Your task to perform on an android device: Go to internet settings Image 0: 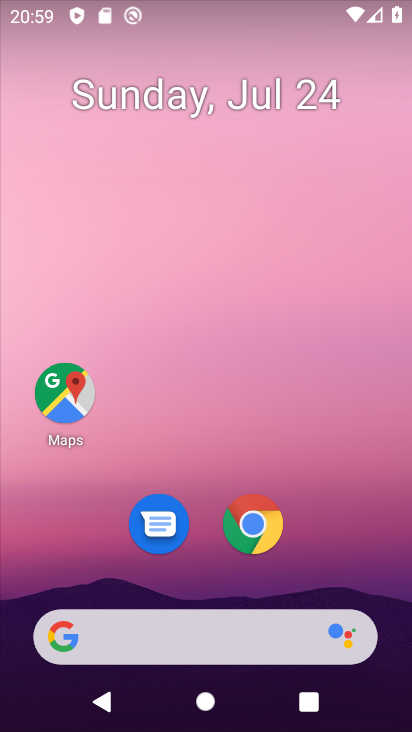
Step 0: press home button
Your task to perform on an android device: Go to internet settings Image 1: 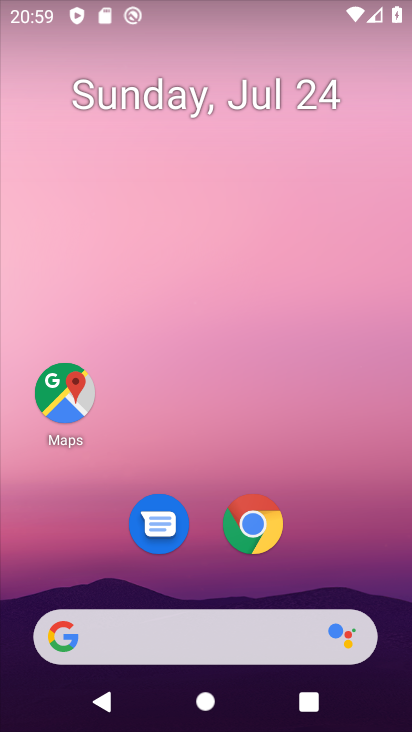
Step 1: drag from (184, 632) to (364, 0)
Your task to perform on an android device: Go to internet settings Image 2: 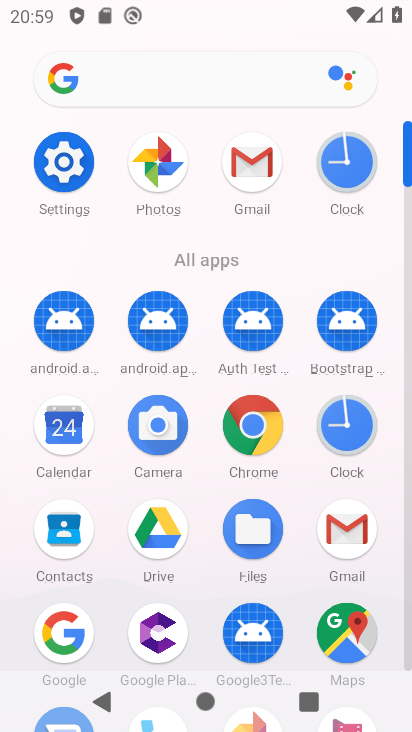
Step 2: click (64, 166)
Your task to perform on an android device: Go to internet settings Image 3: 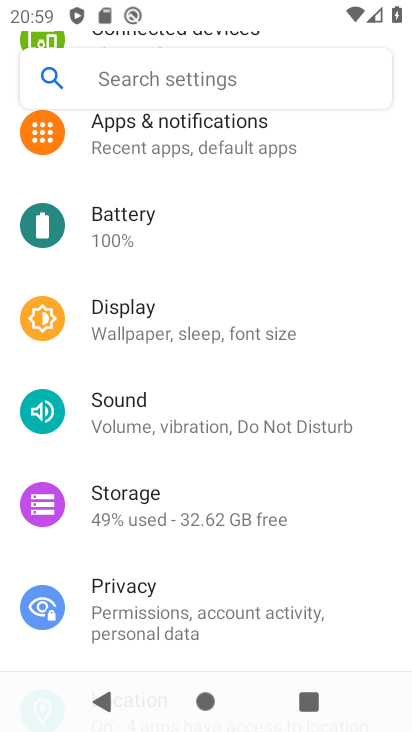
Step 3: drag from (314, 218) to (273, 639)
Your task to perform on an android device: Go to internet settings Image 4: 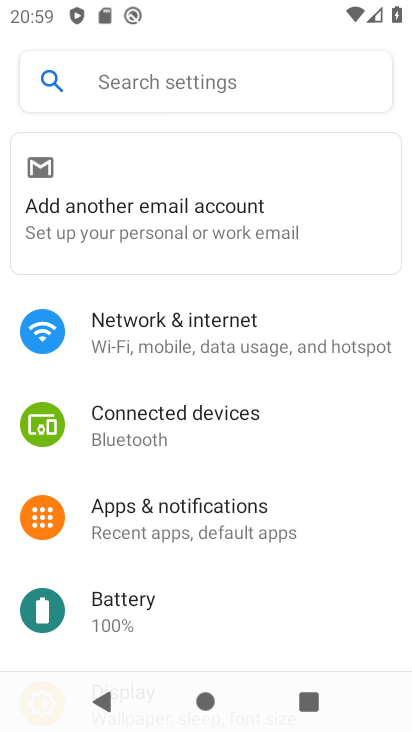
Step 4: click (201, 328)
Your task to perform on an android device: Go to internet settings Image 5: 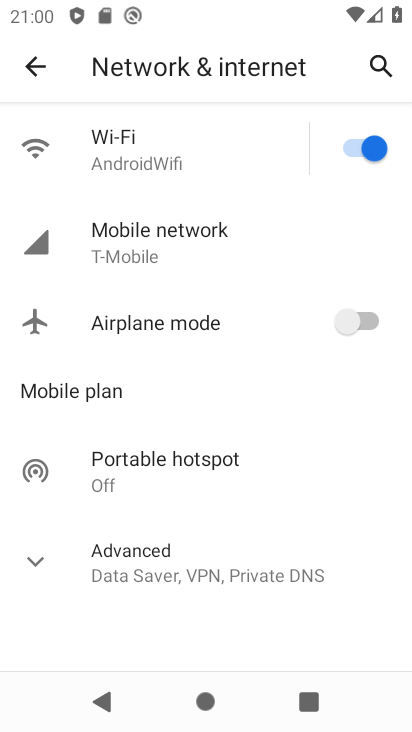
Step 5: task complete